Your task to perform on an android device: clear all cookies in the chrome app Image 0: 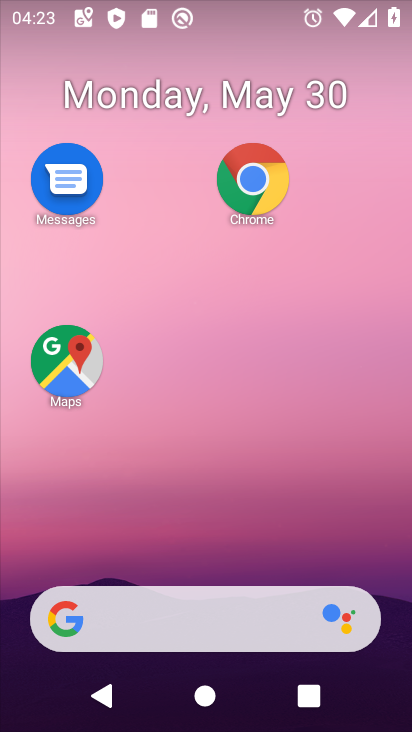
Step 0: drag from (250, 557) to (222, 3)
Your task to perform on an android device: clear all cookies in the chrome app Image 1: 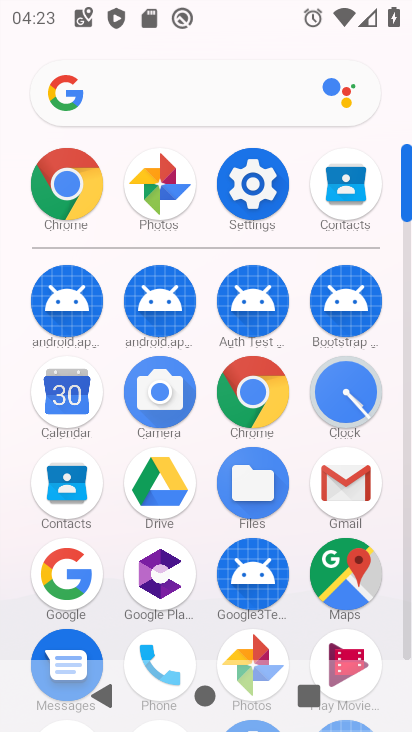
Step 1: click (62, 201)
Your task to perform on an android device: clear all cookies in the chrome app Image 2: 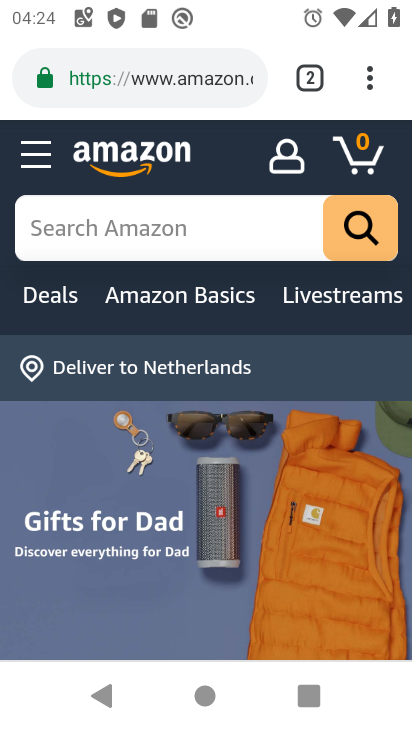
Step 2: click (369, 83)
Your task to perform on an android device: clear all cookies in the chrome app Image 3: 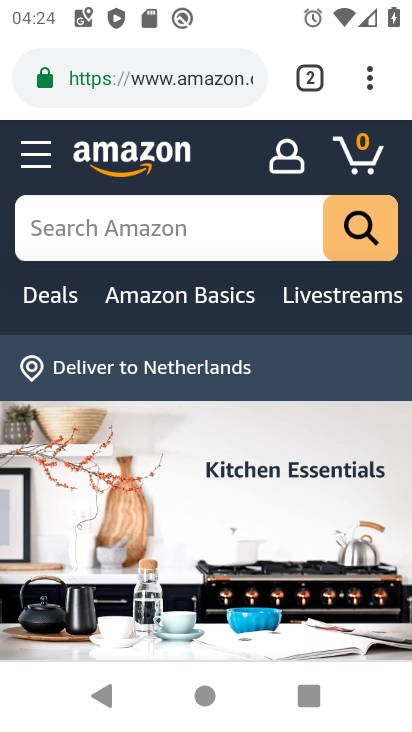
Step 3: click (365, 79)
Your task to perform on an android device: clear all cookies in the chrome app Image 4: 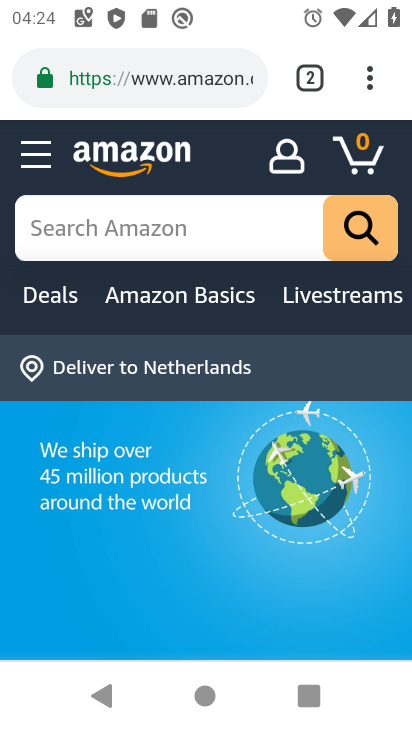
Step 4: click (374, 78)
Your task to perform on an android device: clear all cookies in the chrome app Image 5: 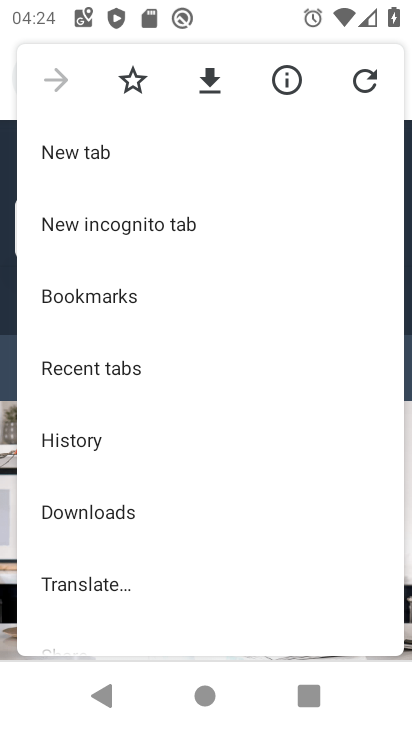
Step 5: click (102, 435)
Your task to perform on an android device: clear all cookies in the chrome app Image 6: 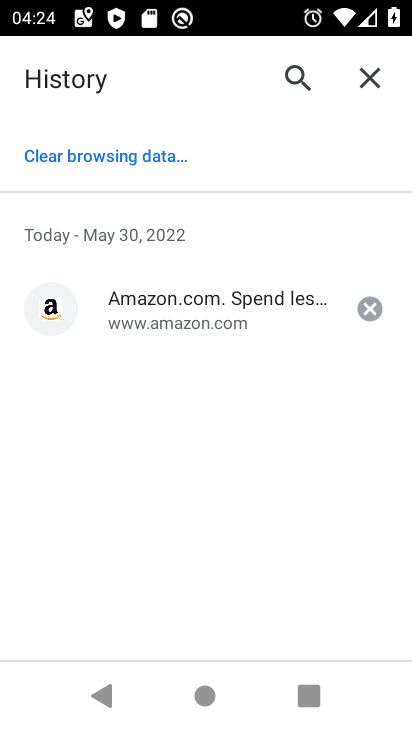
Step 6: click (97, 177)
Your task to perform on an android device: clear all cookies in the chrome app Image 7: 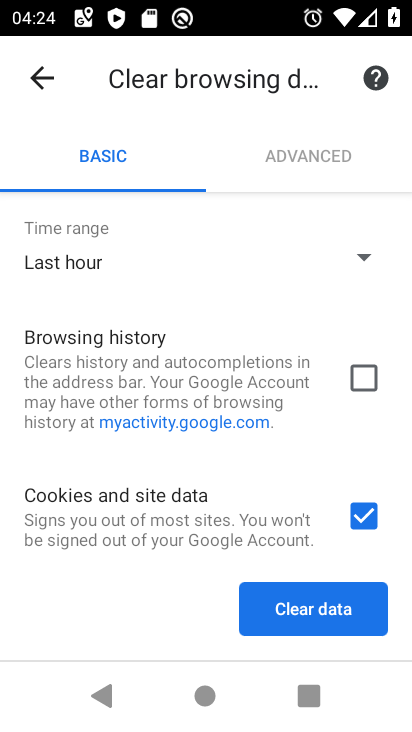
Step 7: click (307, 626)
Your task to perform on an android device: clear all cookies in the chrome app Image 8: 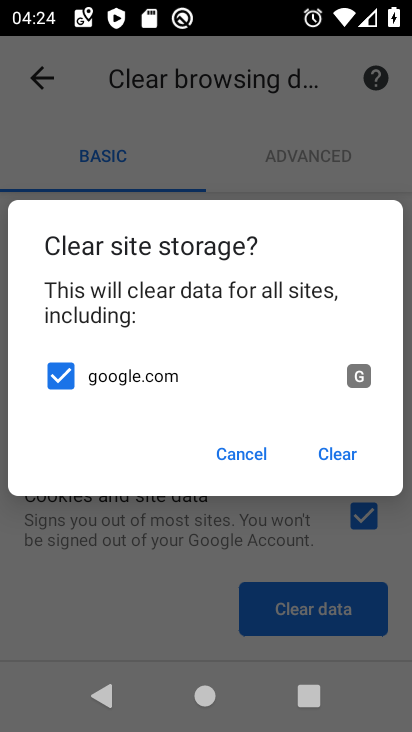
Step 8: click (328, 449)
Your task to perform on an android device: clear all cookies in the chrome app Image 9: 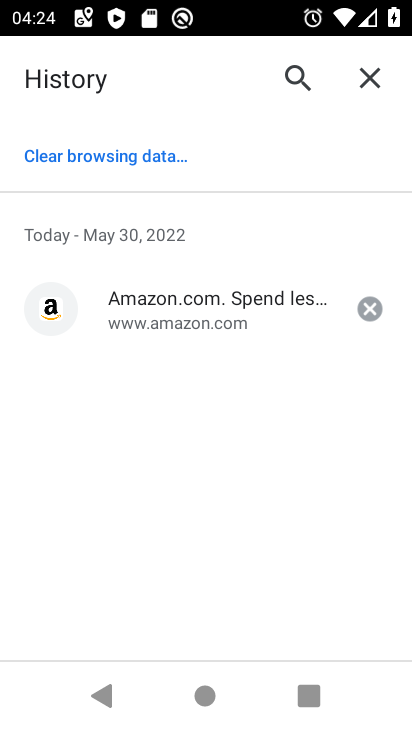
Step 9: task complete